Your task to perform on an android device: Open sound settings Image 0: 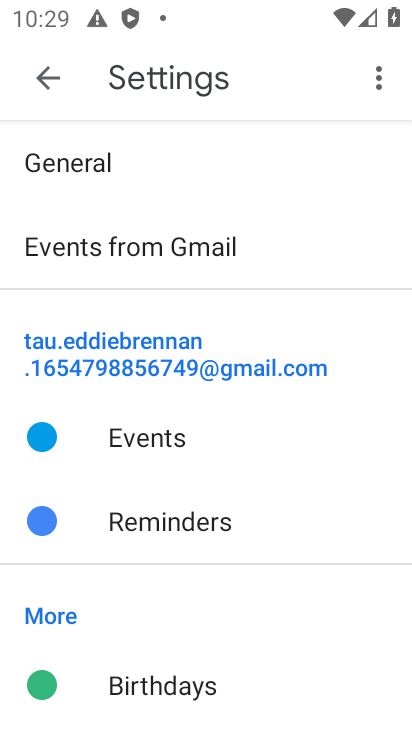
Step 0: press home button
Your task to perform on an android device: Open sound settings Image 1: 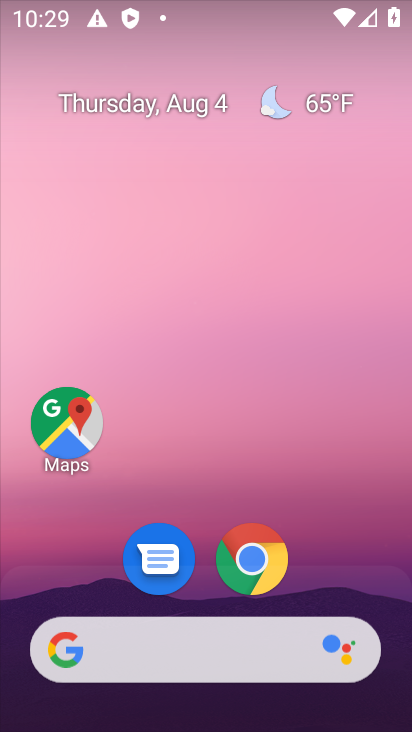
Step 1: drag from (205, 656) to (152, 105)
Your task to perform on an android device: Open sound settings Image 2: 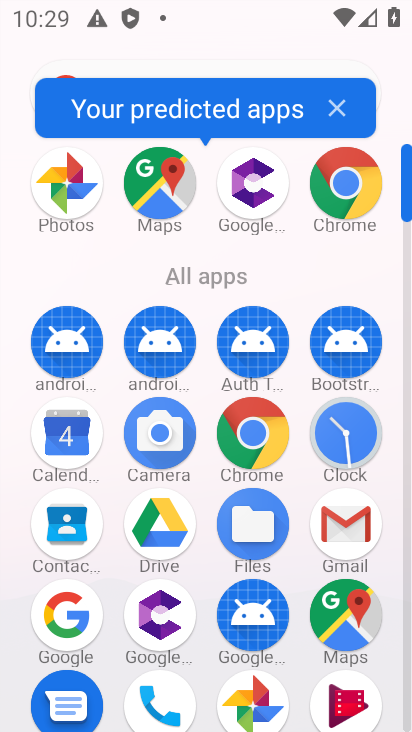
Step 2: drag from (168, 636) to (127, 106)
Your task to perform on an android device: Open sound settings Image 3: 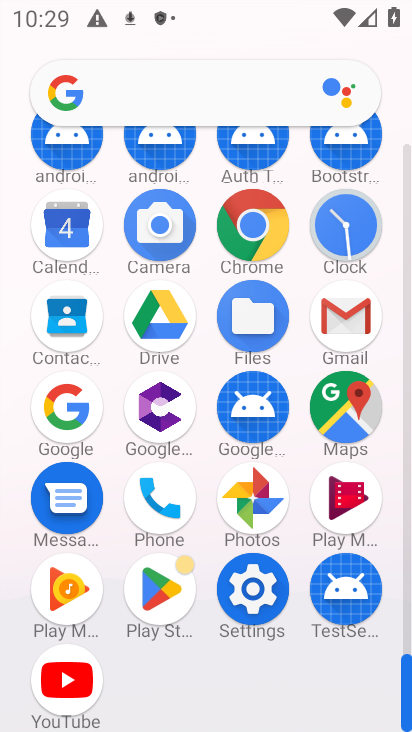
Step 3: click (252, 614)
Your task to perform on an android device: Open sound settings Image 4: 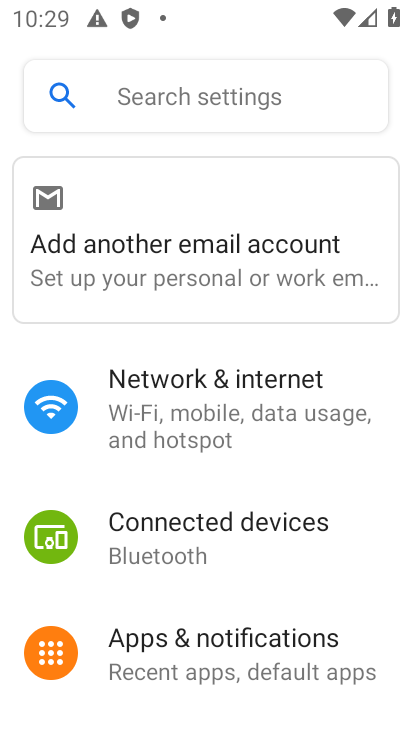
Step 4: drag from (193, 432) to (136, 93)
Your task to perform on an android device: Open sound settings Image 5: 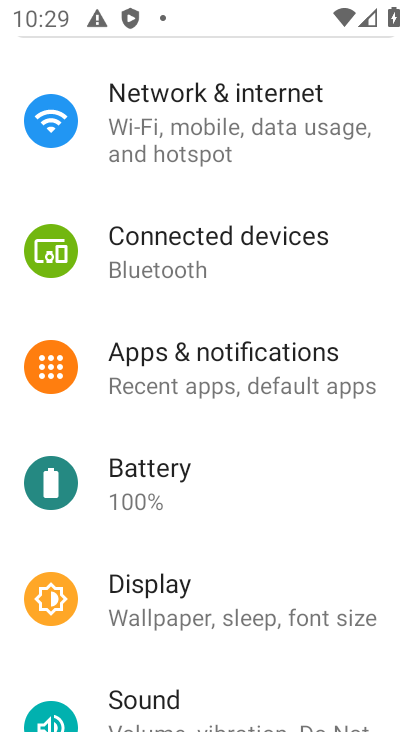
Step 5: click (156, 699)
Your task to perform on an android device: Open sound settings Image 6: 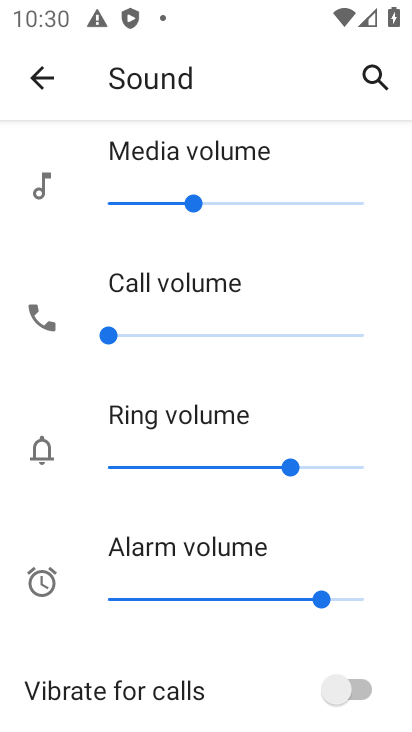
Step 6: task complete